Your task to perform on an android device: What's the weather going to be tomorrow? Image 0: 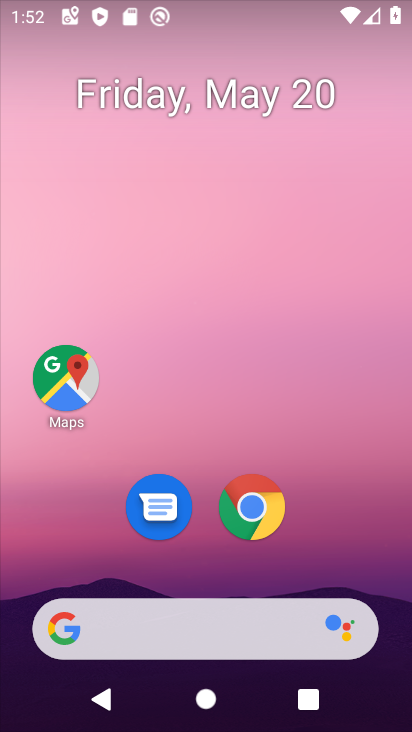
Step 0: drag from (228, 721) to (231, 234)
Your task to perform on an android device: What's the weather going to be tomorrow? Image 1: 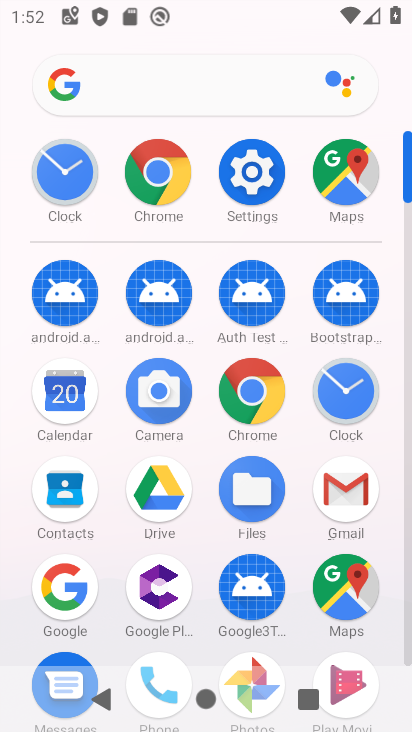
Step 1: click (63, 576)
Your task to perform on an android device: What's the weather going to be tomorrow? Image 2: 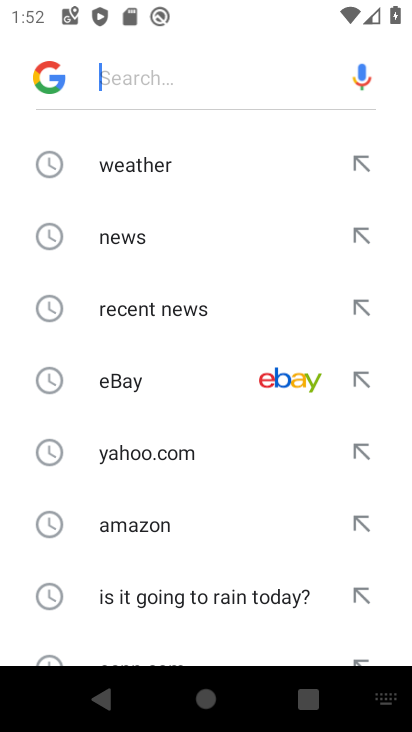
Step 2: click (130, 157)
Your task to perform on an android device: What's the weather going to be tomorrow? Image 3: 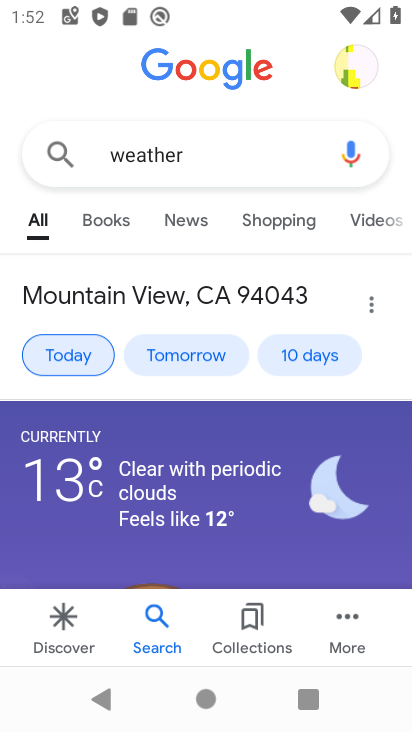
Step 3: click (162, 351)
Your task to perform on an android device: What's the weather going to be tomorrow? Image 4: 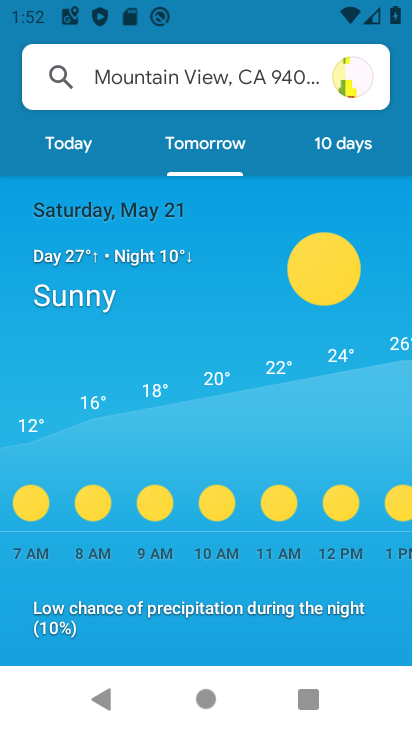
Step 4: task complete